Your task to perform on an android device: turn on javascript in the chrome app Image 0: 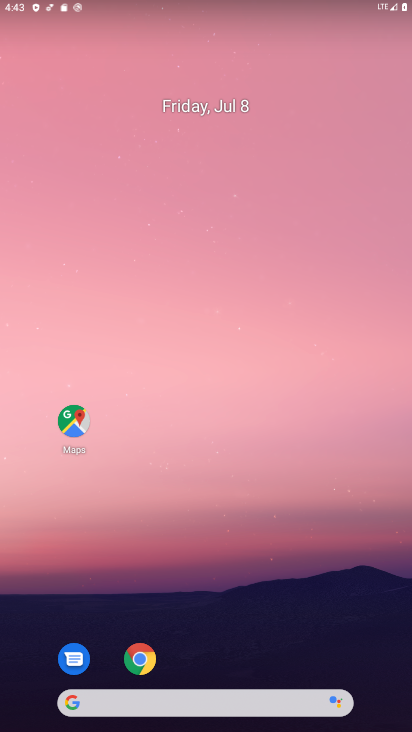
Step 0: drag from (258, 653) to (201, 5)
Your task to perform on an android device: turn on javascript in the chrome app Image 1: 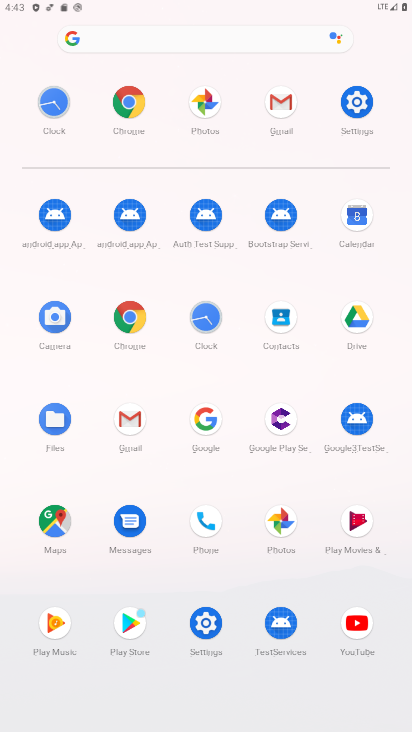
Step 1: click (127, 111)
Your task to perform on an android device: turn on javascript in the chrome app Image 2: 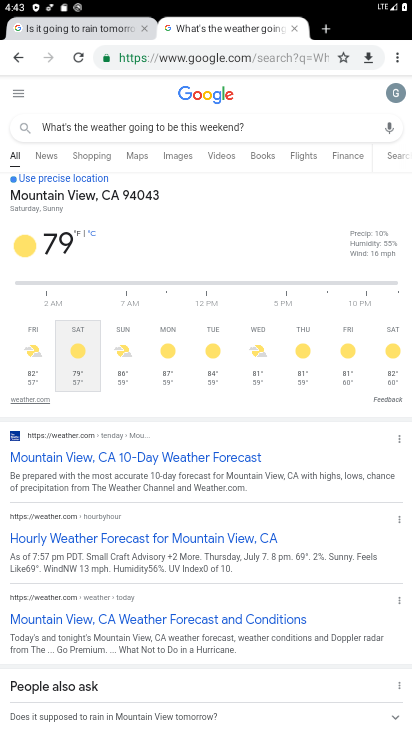
Step 2: click (400, 62)
Your task to perform on an android device: turn on javascript in the chrome app Image 3: 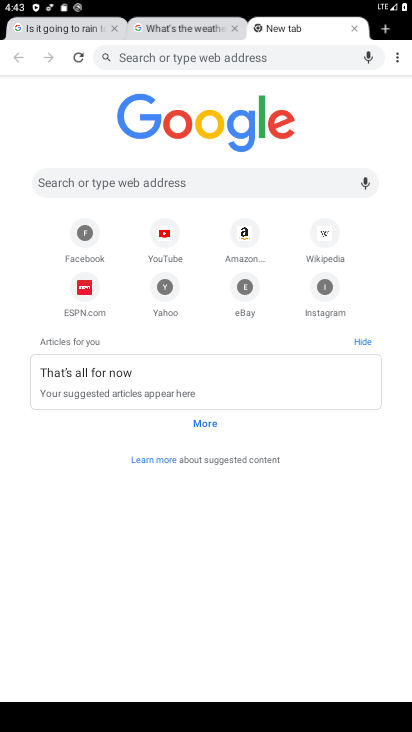
Step 3: drag from (400, 62) to (277, 258)
Your task to perform on an android device: turn on javascript in the chrome app Image 4: 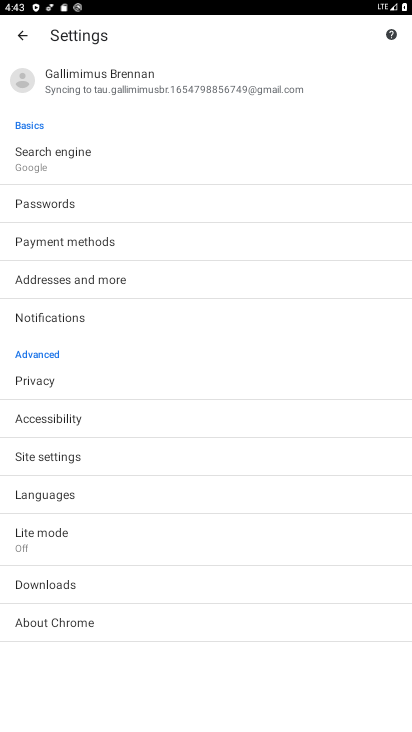
Step 4: click (57, 457)
Your task to perform on an android device: turn on javascript in the chrome app Image 5: 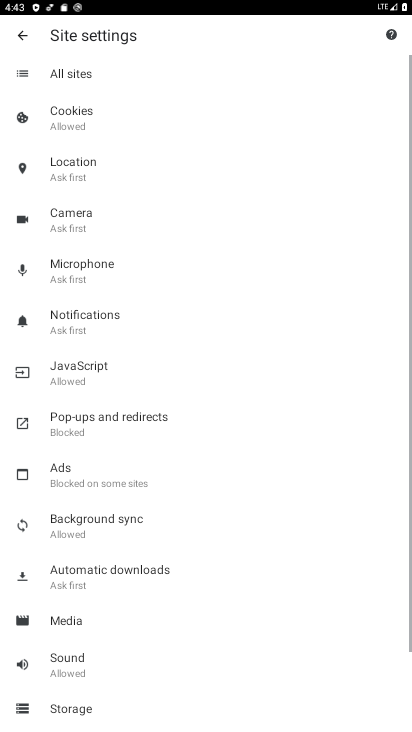
Step 5: click (85, 375)
Your task to perform on an android device: turn on javascript in the chrome app Image 6: 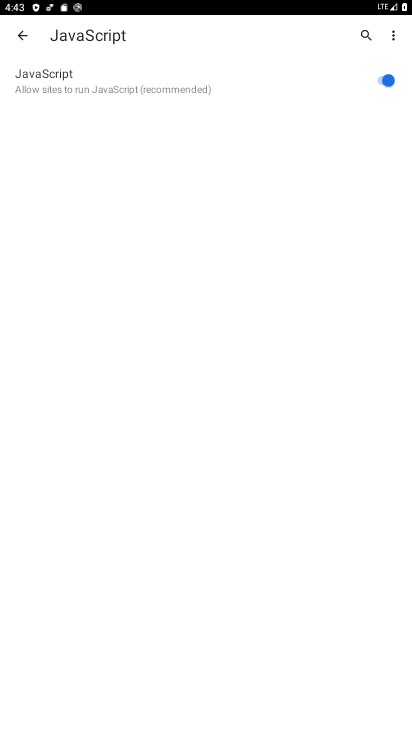
Step 6: task complete